Your task to perform on an android device: change the clock display to show seconds Image 0: 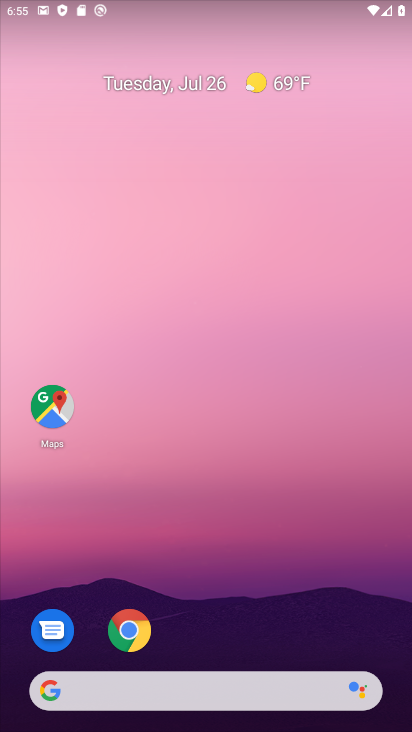
Step 0: drag from (250, 601) to (274, 60)
Your task to perform on an android device: change the clock display to show seconds Image 1: 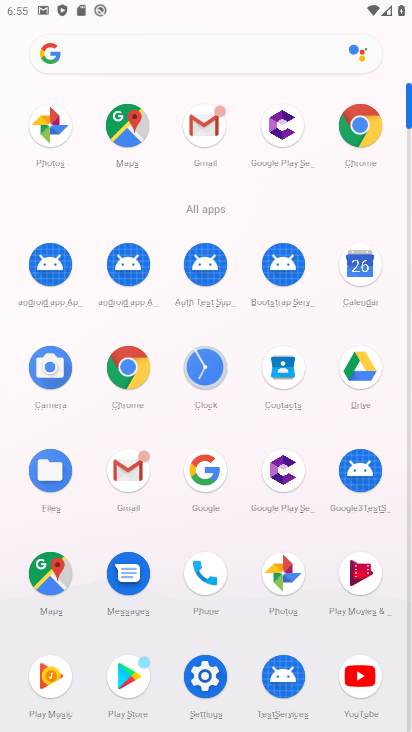
Step 1: click (208, 377)
Your task to perform on an android device: change the clock display to show seconds Image 2: 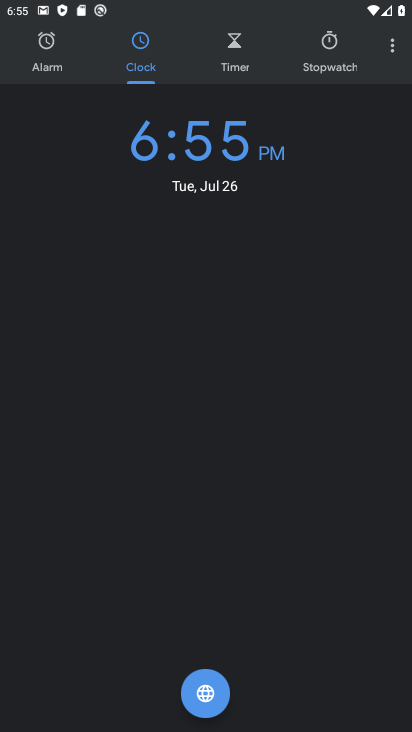
Step 2: click (394, 46)
Your task to perform on an android device: change the clock display to show seconds Image 3: 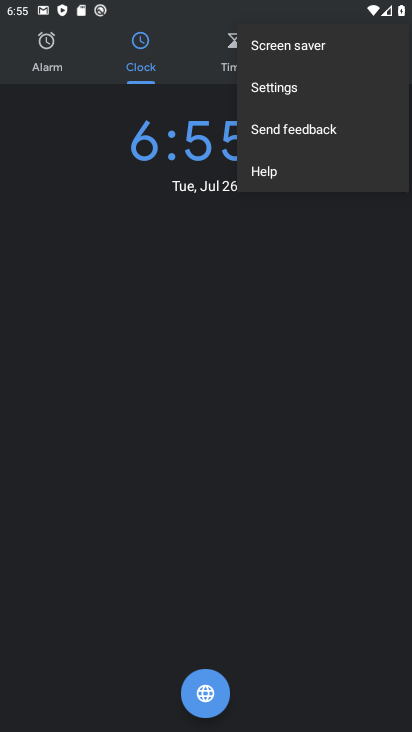
Step 3: click (315, 93)
Your task to perform on an android device: change the clock display to show seconds Image 4: 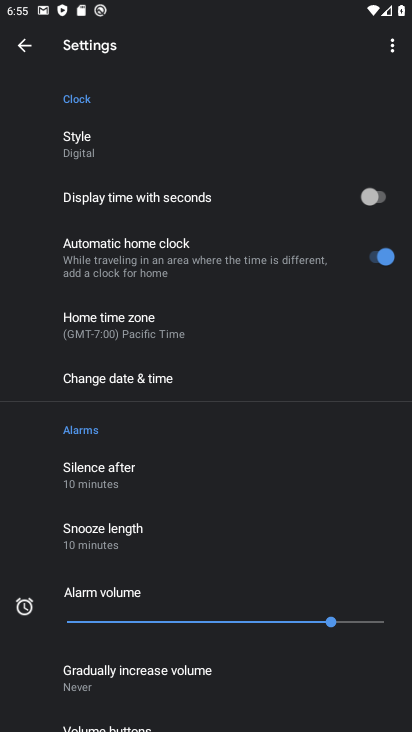
Step 4: click (279, 139)
Your task to perform on an android device: change the clock display to show seconds Image 5: 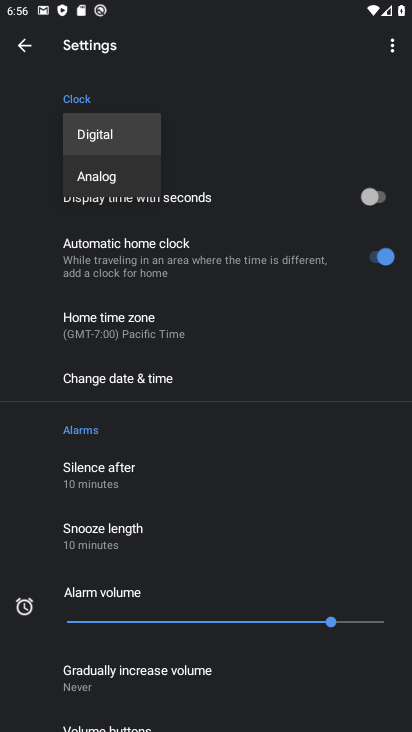
Step 5: click (361, 204)
Your task to perform on an android device: change the clock display to show seconds Image 6: 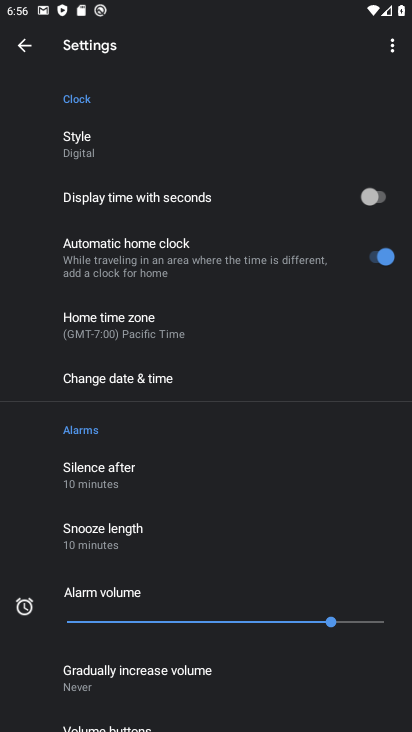
Step 6: click (380, 200)
Your task to perform on an android device: change the clock display to show seconds Image 7: 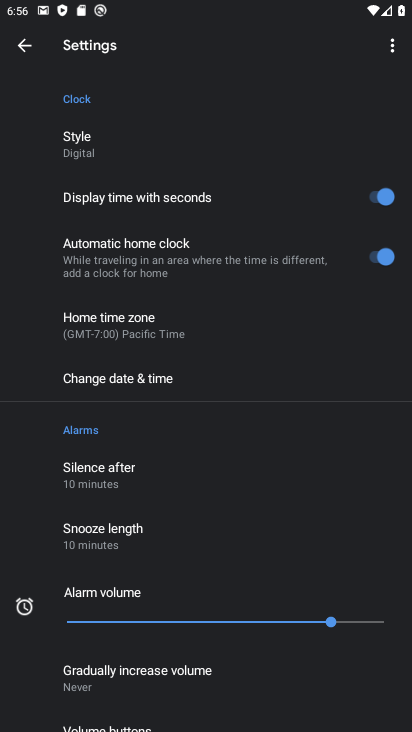
Step 7: task complete